Your task to perform on an android device: open wifi settings Image 0: 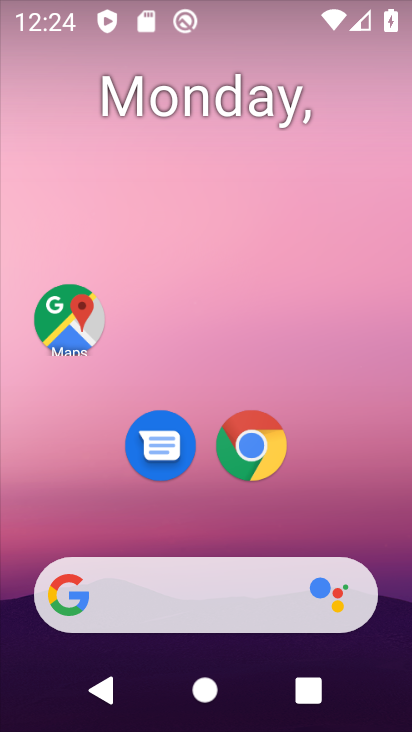
Step 0: drag from (323, 661) to (170, 114)
Your task to perform on an android device: open wifi settings Image 1: 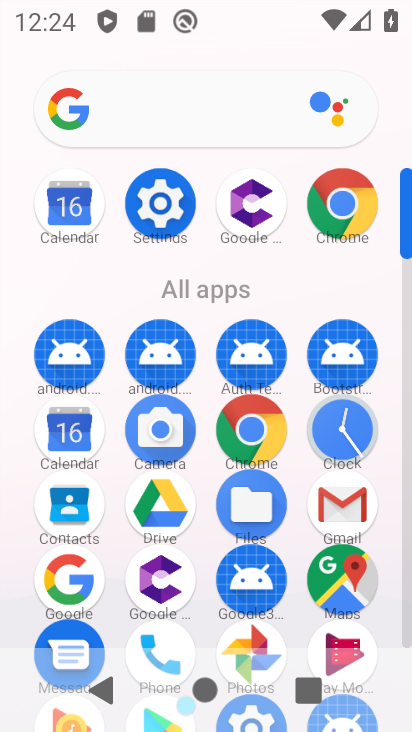
Step 1: click (150, 192)
Your task to perform on an android device: open wifi settings Image 2: 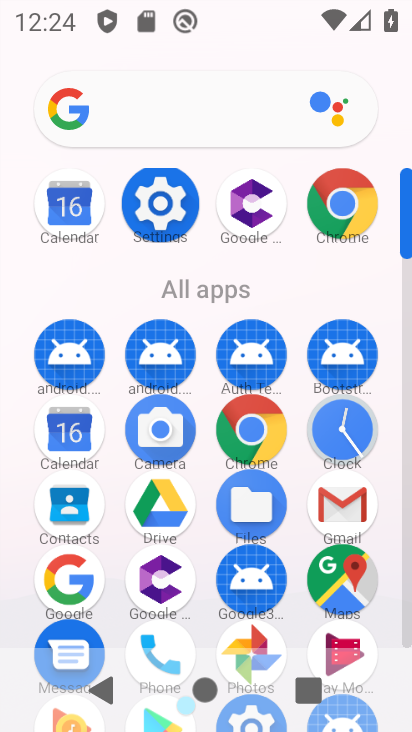
Step 2: click (150, 193)
Your task to perform on an android device: open wifi settings Image 3: 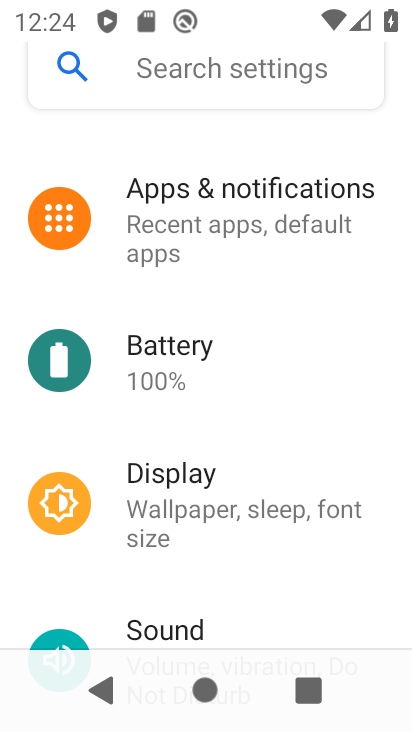
Step 3: click (153, 196)
Your task to perform on an android device: open wifi settings Image 4: 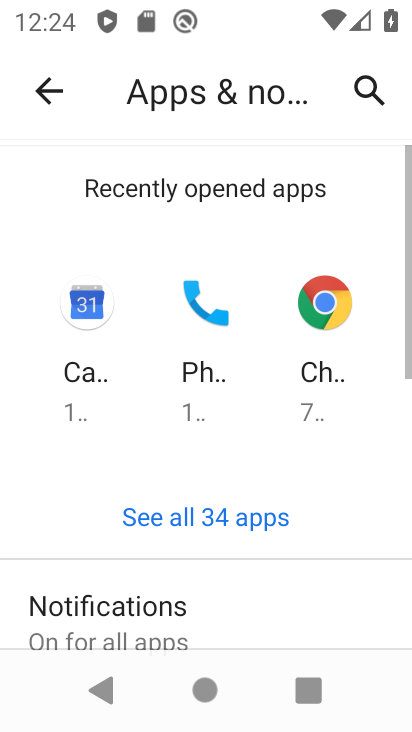
Step 4: click (47, 90)
Your task to perform on an android device: open wifi settings Image 5: 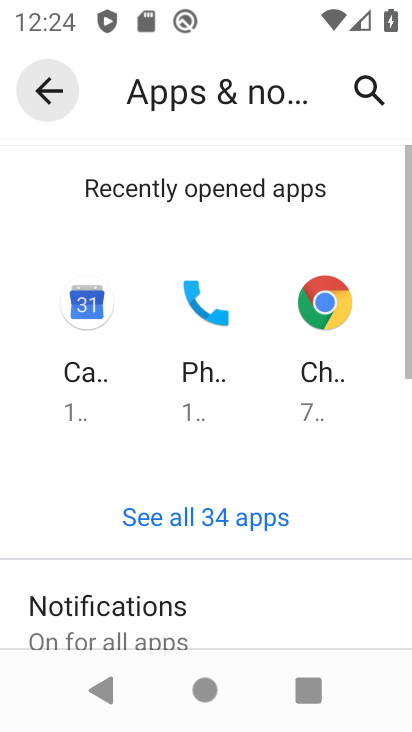
Step 5: click (47, 91)
Your task to perform on an android device: open wifi settings Image 6: 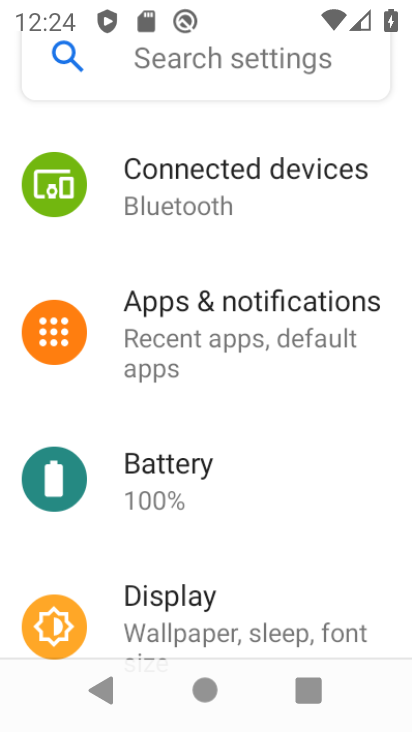
Step 6: click (49, 93)
Your task to perform on an android device: open wifi settings Image 7: 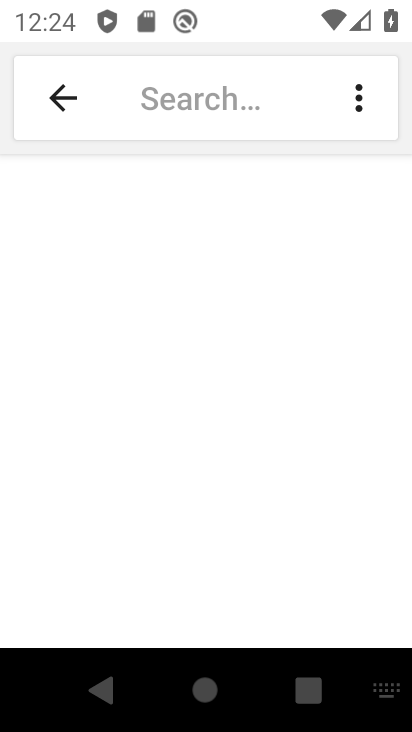
Step 7: click (54, 117)
Your task to perform on an android device: open wifi settings Image 8: 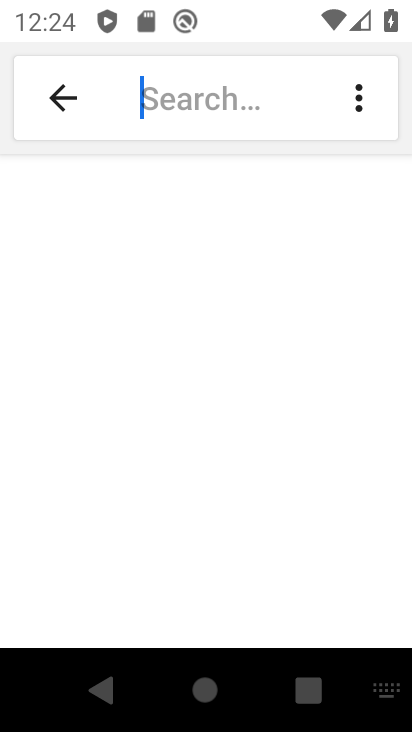
Step 8: click (63, 112)
Your task to perform on an android device: open wifi settings Image 9: 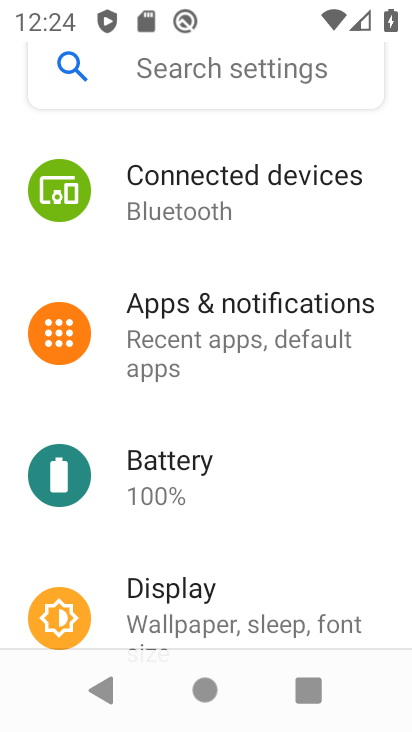
Step 9: drag from (199, 496) to (186, 59)
Your task to perform on an android device: open wifi settings Image 10: 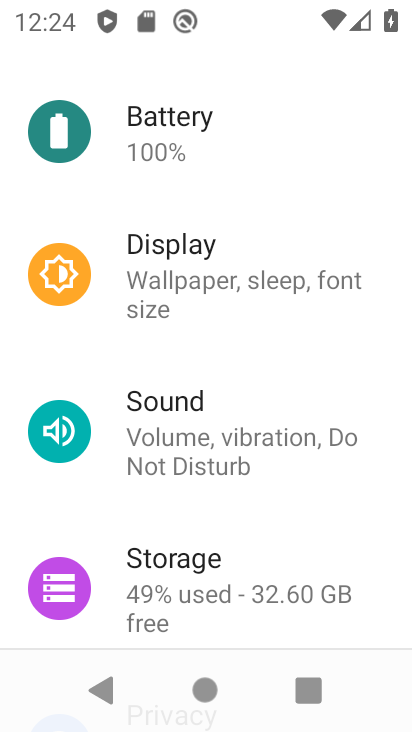
Step 10: drag from (227, 381) to (226, 59)
Your task to perform on an android device: open wifi settings Image 11: 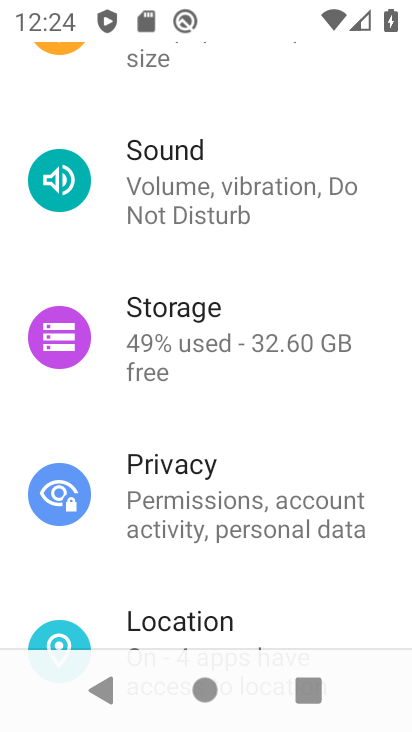
Step 11: drag from (217, 532) to (204, 286)
Your task to perform on an android device: open wifi settings Image 12: 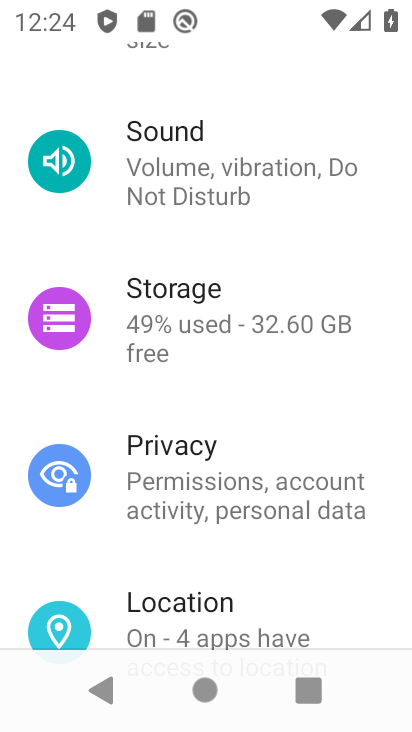
Step 12: drag from (205, 459) to (194, 194)
Your task to perform on an android device: open wifi settings Image 13: 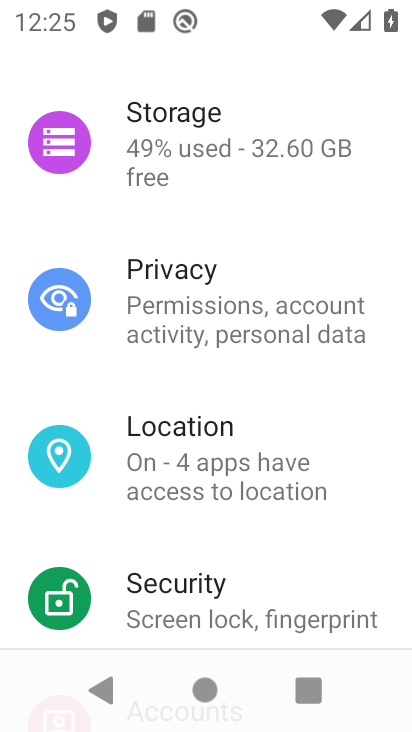
Step 13: drag from (161, 162) to (248, 593)
Your task to perform on an android device: open wifi settings Image 14: 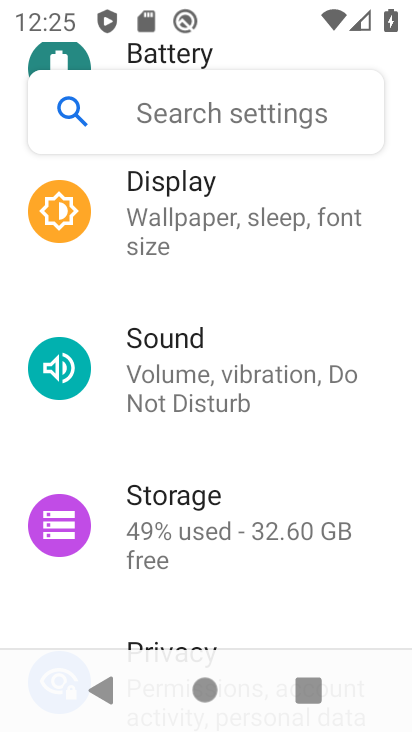
Step 14: drag from (185, 306) to (308, 545)
Your task to perform on an android device: open wifi settings Image 15: 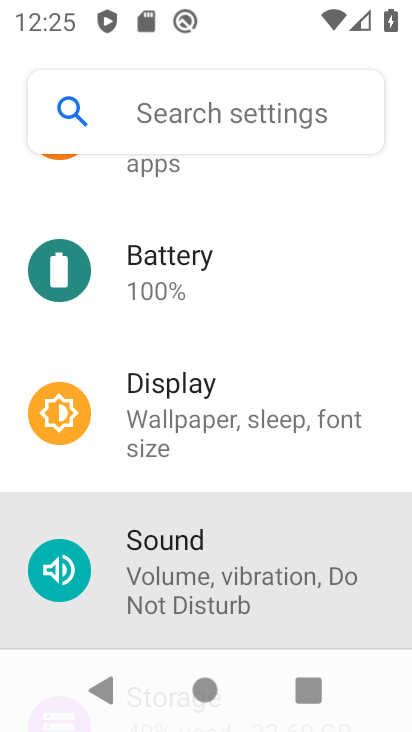
Step 15: drag from (212, 127) to (293, 590)
Your task to perform on an android device: open wifi settings Image 16: 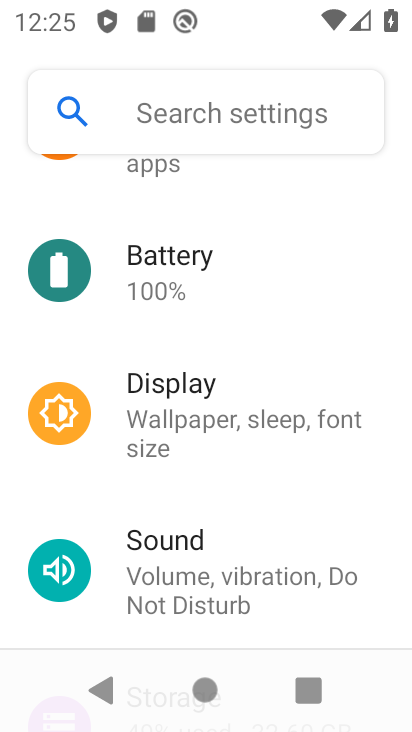
Step 16: drag from (256, 301) to (277, 582)
Your task to perform on an android device: open wifi settings Image 17: 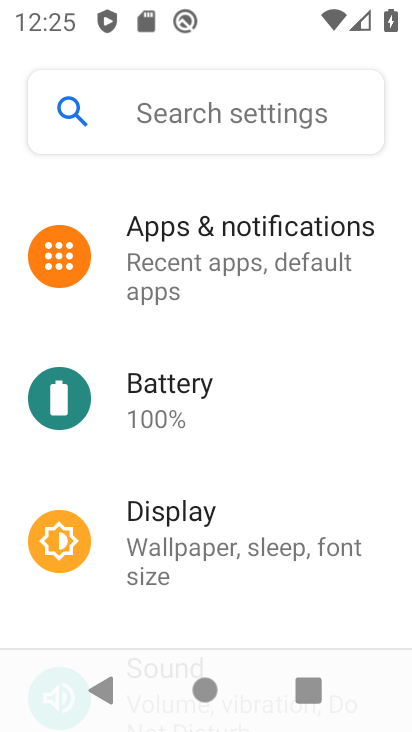
Step 17: drag from (205, 326) to (264, 540)
Your task to perform on an android device: open wifi settings Image 18: 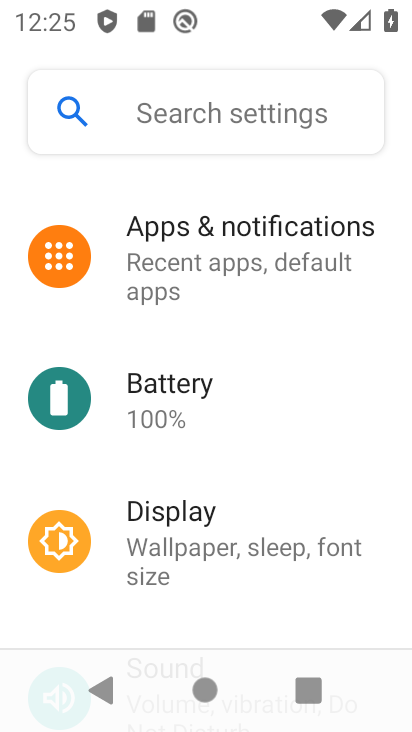
Step 18: drag from (174, 230) to (231, 517)
Your task to perform on an android device: open wifi settings Image 19: 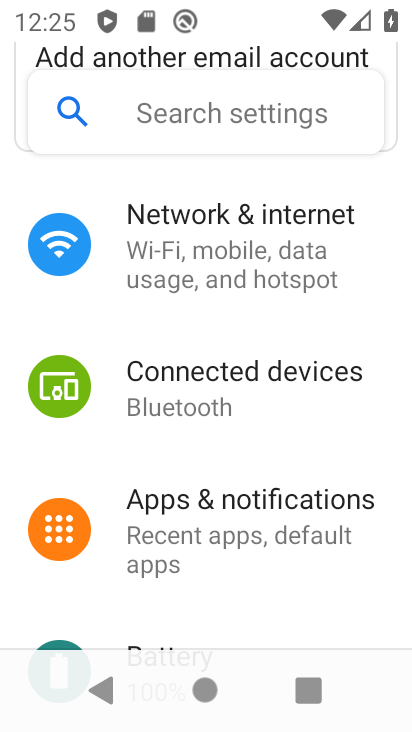
Step 19: drag from (209, 248) to (305, 572)
Your task to perform on an android device: open wifi settings Image 20: 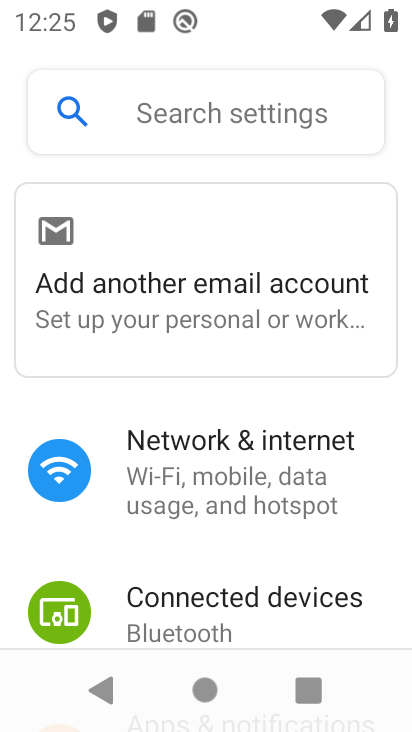
Step 20: click (228, 465)
Your task to perform on an android device: open wifi settings Image 21: 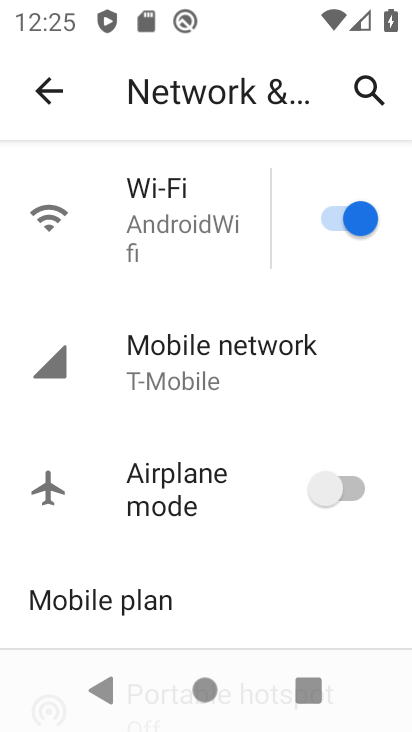
Step 21: task complete